Your task to perform on an android device: open app "Google Translate" Image 0: 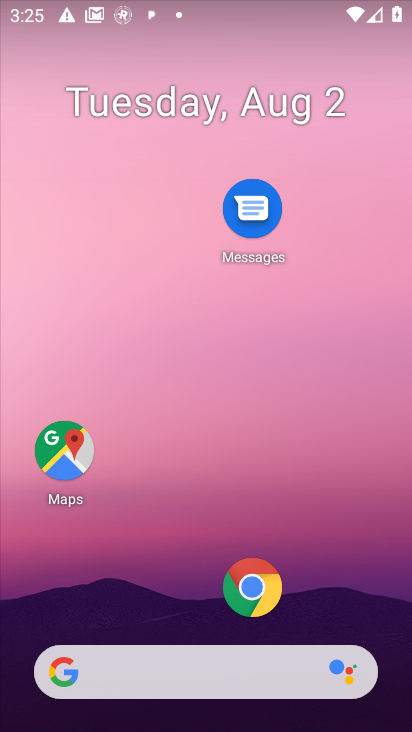
Step 0: drag from (202, 597) to (205, 214)
Your task to perform on an android device: open app "Google Translate" Image 1: 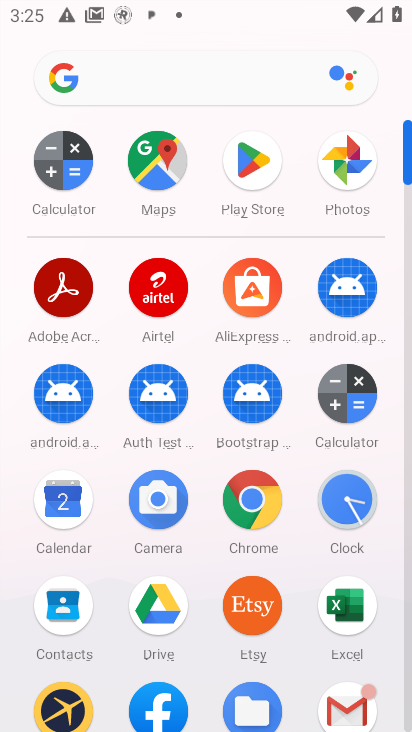
Step 1: click (262, 160)
Your task to perform on an android device: open app "Google Translate" Image 2: 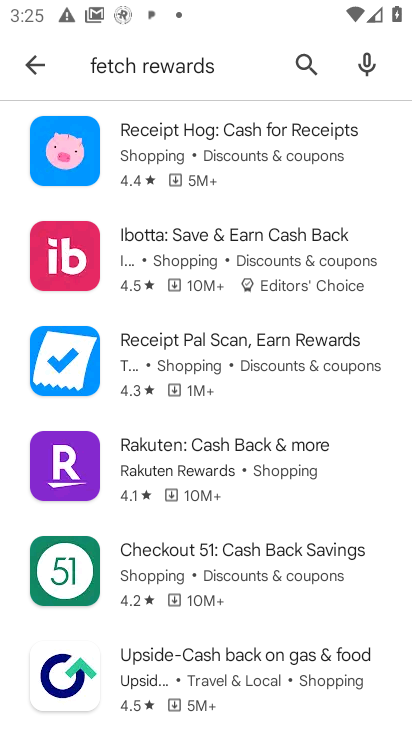
Step 2: drag from (301, 57) to (353, 57)
Your task to perform on an android device: open app "Google Translate" Image 3: 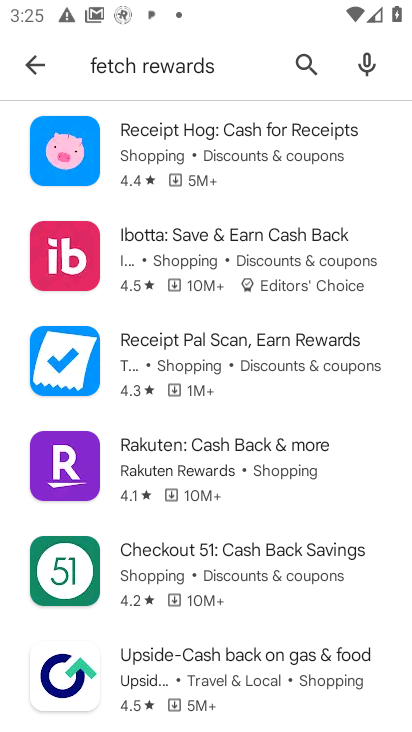
Step 3: click (301, 58)
Your task to perform on an android device: open app "Google Translate" Image 4: 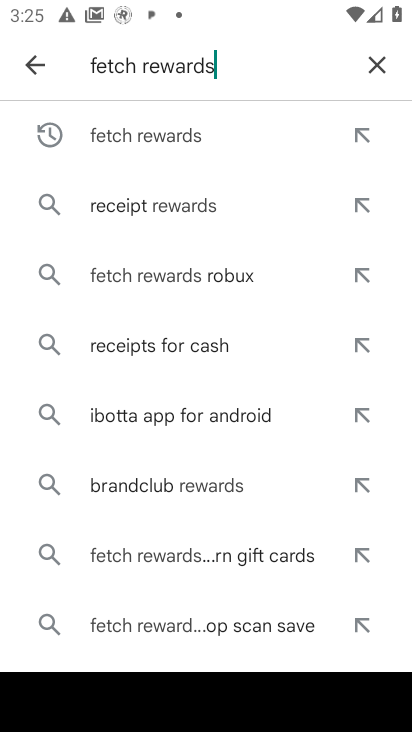
Step 4: click (371, 58)
Your task to perform on an android device: open app "Google Translate" Image 5: 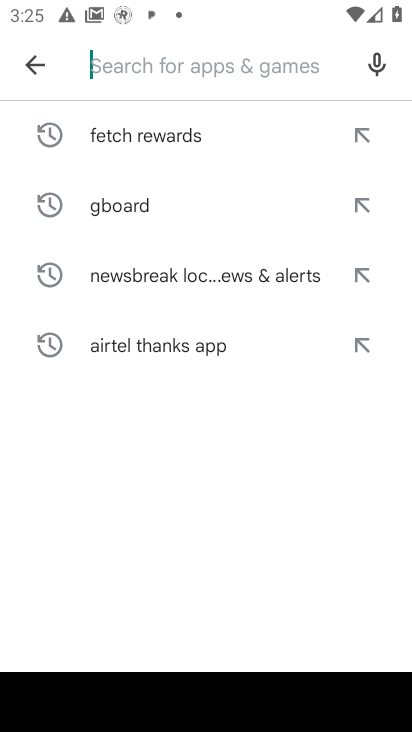
Step 5: type "Google Translate"
Your task to perform on an android device: open app "Google Translate" Image 6: 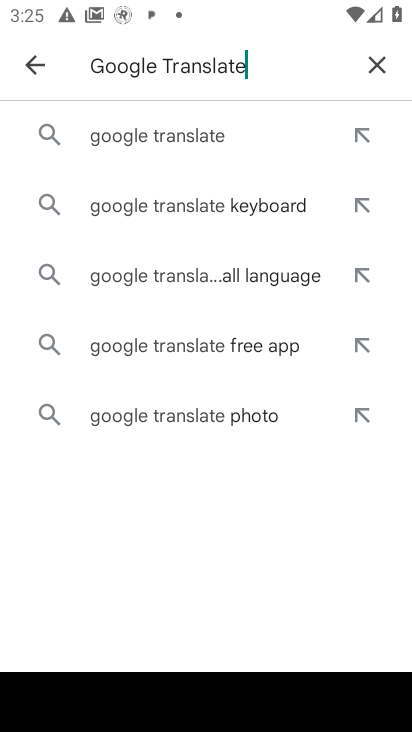
Step 6: type ""
Your task to perform on an android device: open app "Google Translate" Image 7: 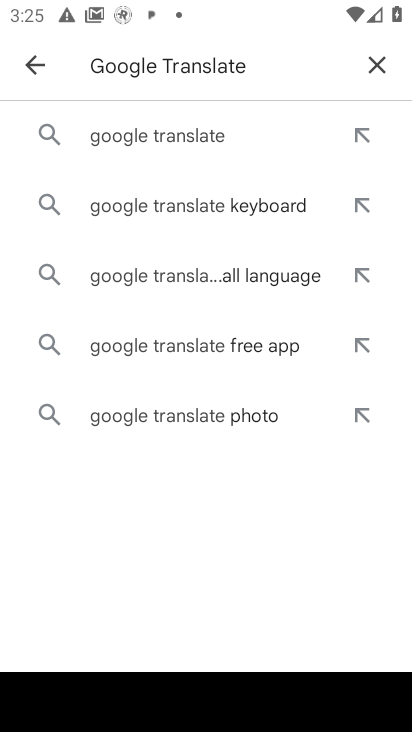
Step 7: click (252, 134)
Your task to perform on an android device: open app "Google Translate" Image 8: 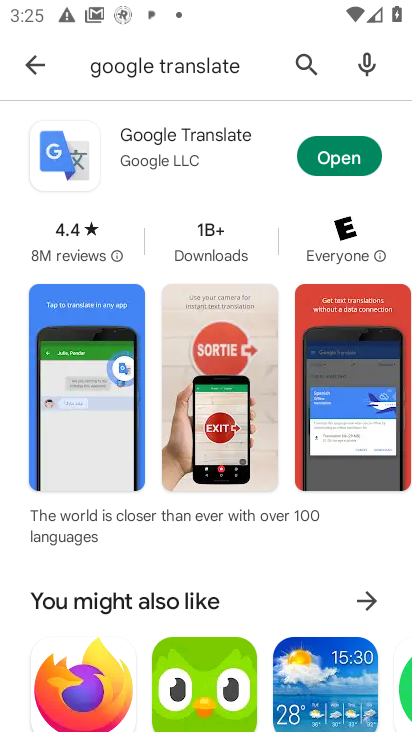
Step 8: click (343, 150)
Your task to perform on an android device: open app "Google Translate" Image 9: 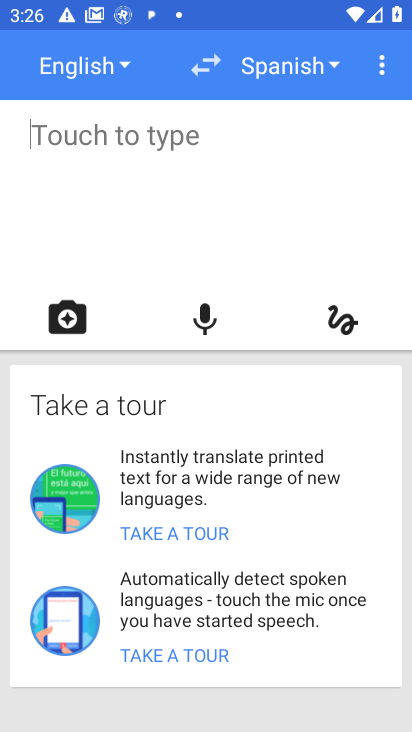
Step 9: task complete